Your task to perform on an android device: choose inbox layout in the gmail app Image 0: 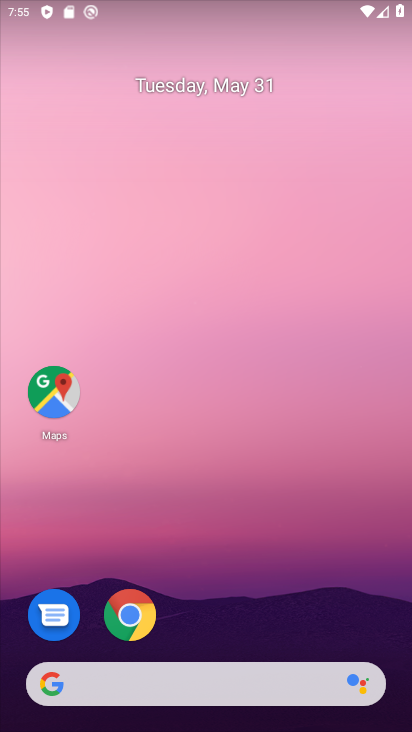
Step 0: press home button
Your task to perform on an android device: choose inbox layout in the gmail app Image 1: 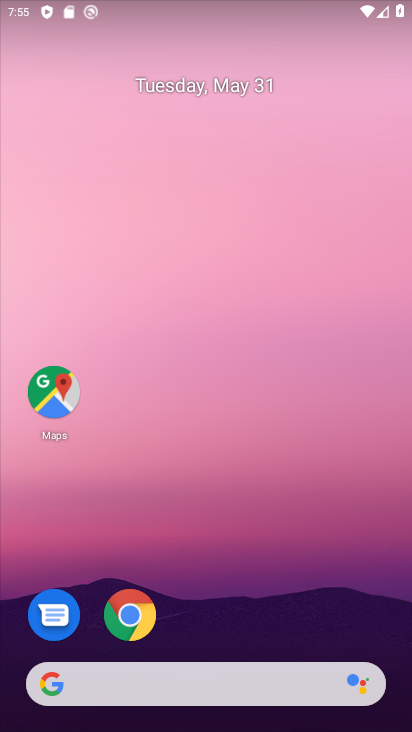
Step 1: drag from (217, 676) to (241, 55)
Your task to perform on an android device: choose inbox layout in the gmail app Image 2: 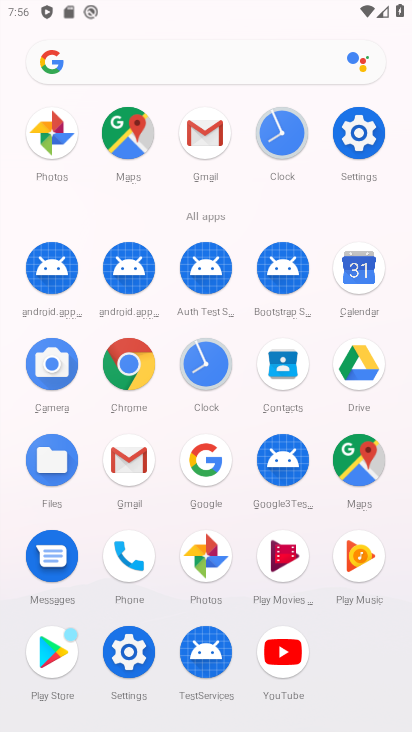
Step 2: click (203, 139)
Your task to perform on an android device: choose inbox layout in the gmail app Image 3: 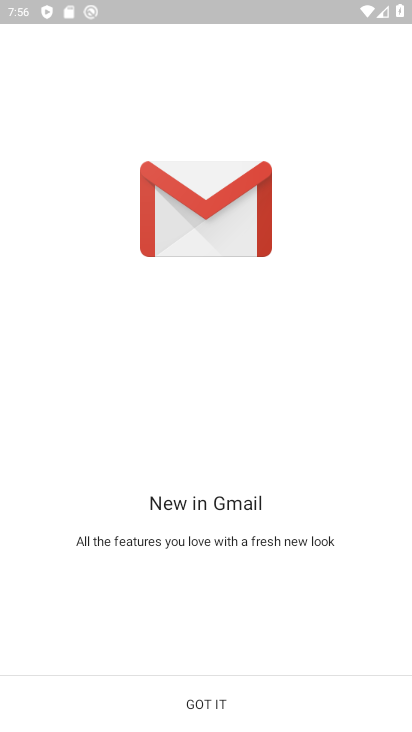
Step 3: click (230, 709)
Your task to perform on an android device: choose inbox layout in the gmail app Image 4: 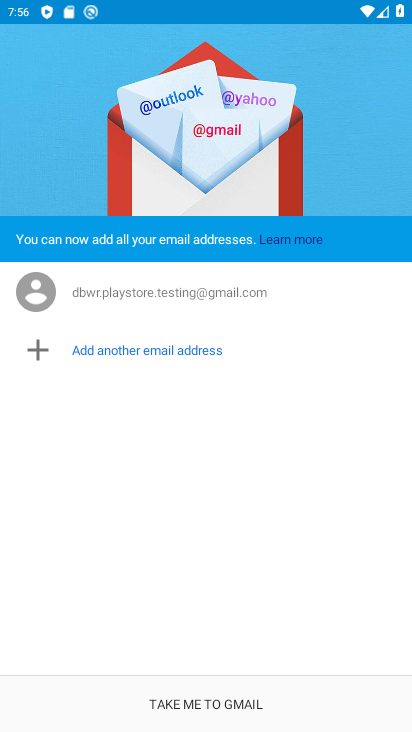
Step 4: click (230, 709)
Your task to perform on an android device: choose inbox layout in the gmail app Image 5: 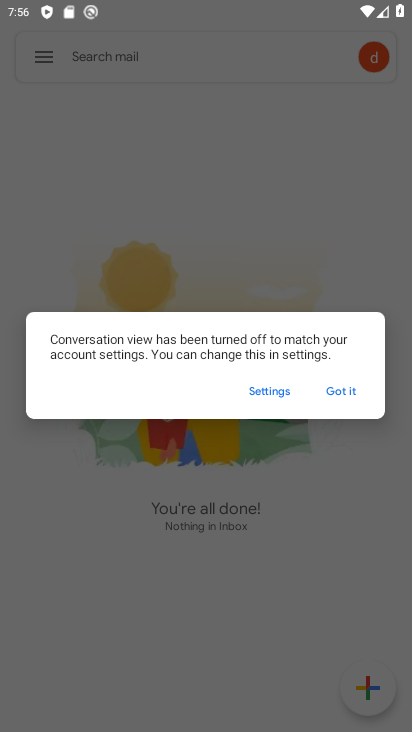
Step 5: click (346, 397)
Your task to perform on an android device: choose inbox layout in the gmail app Image 6: 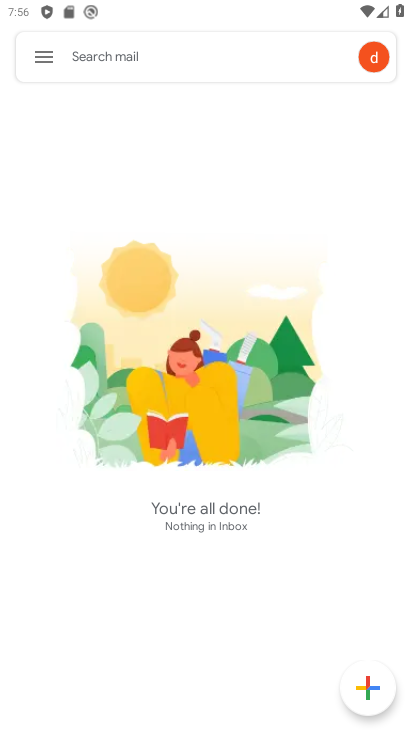
Step 6: click (35, 53)
Your task to perform on an android device: choose inbox layout in the gmail app Image 7: 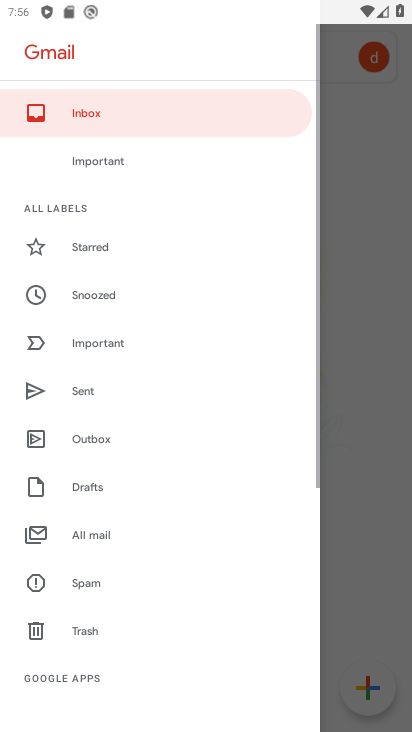
Step 7: drag from (132, 630) to (212, 217)
Your task to perform on an android device: choose inbox layout in the gmail app Image 8: 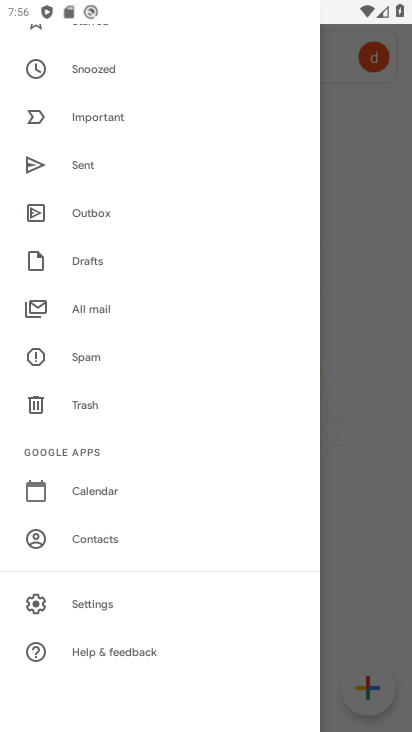
Step 8: click (105, 608)
Your task to perform on an android device: choose inbox layout in the gmail app Image 9: 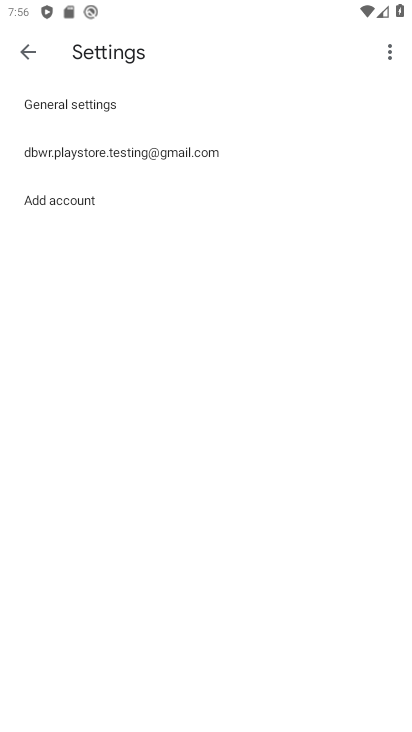
Step 9: click (163, 159)
Your task to perform on an android device: choose inbox layout in the gmail app Image 10: 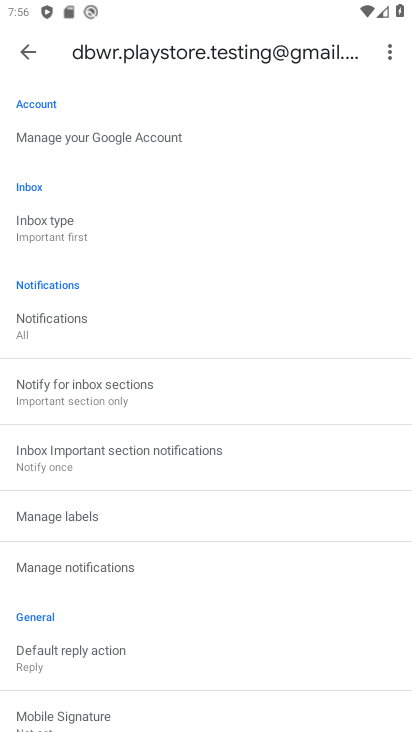
Step 10: click (49, 231)
Your task to perform on an android device: choose inbox layout in the gmail app Image 11: 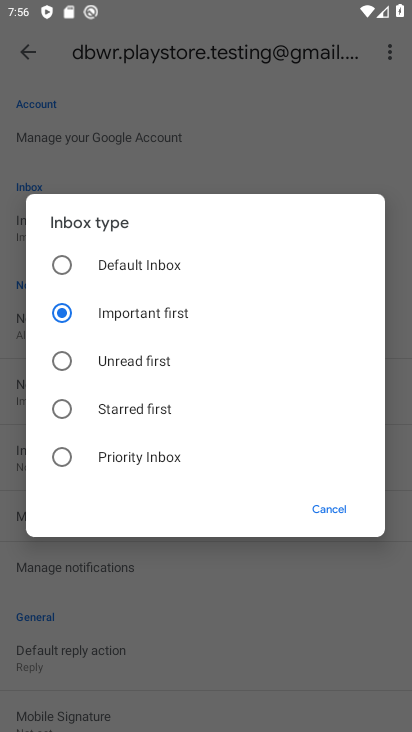
Step 11: click (64, 362)
Your task to perform on an android device: choose inbox layout in the gmail app Image 12: 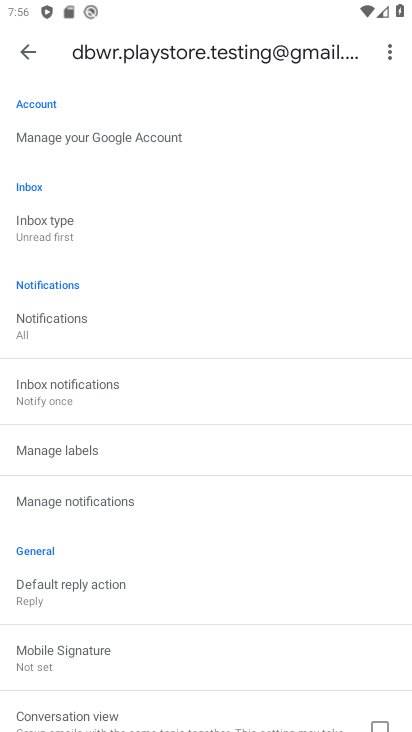
Step 12: task complete